Your task to perform on an android device: change the clock display to show seconds Image 0: 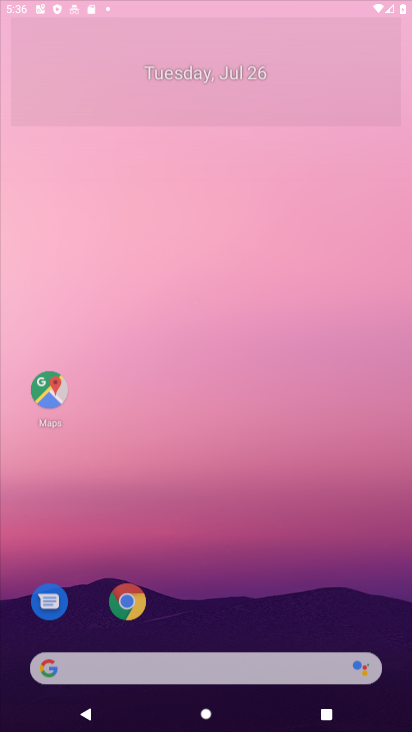
Step 0: press home button
Your task to perform on an android device: change the clock display to show seconds Image 1: 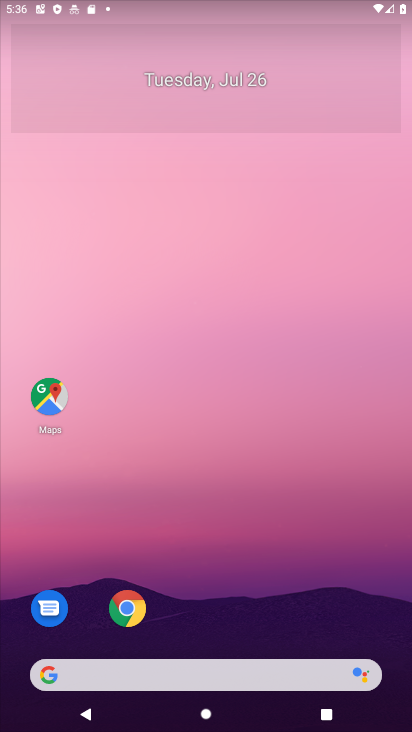
Step 1: drag from (250, 648) to (257, 66)
Your task to perform on an android device: change the clock display to show seconds Image 2: 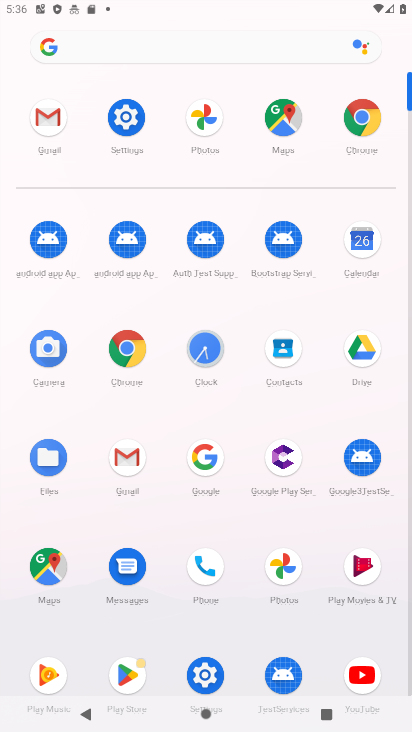
Step 2: click (204, 352)
Your task to perform on an android device: change the clock display to show seconds Image 3: 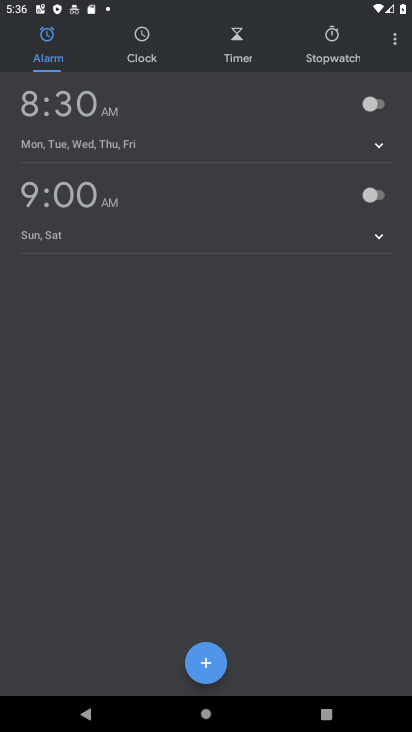
Step 3: click (396, 35)
Your task to perform on an android device: change the clock display to show seconds Image 4: 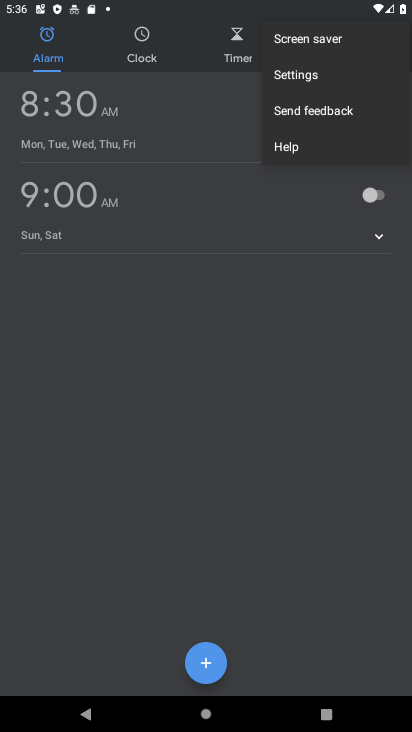
Step 4: click (290, 79)
Your task to perform on an android device: change the clock display to show seconds Image 5: 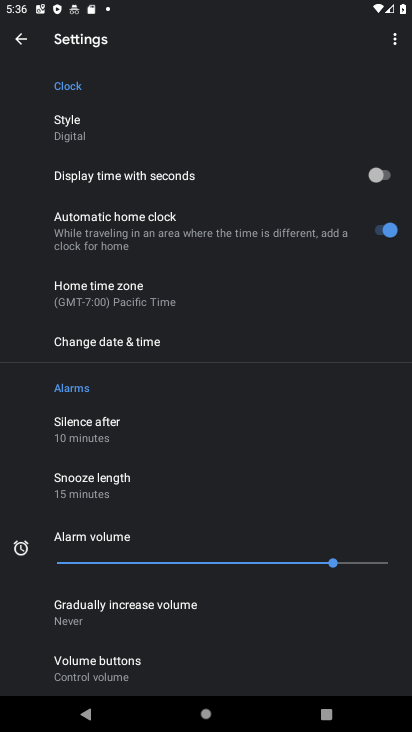
Step 5: click (378, 185)
Your task to perform on an android device: change the clock display to show seconds Image 6: 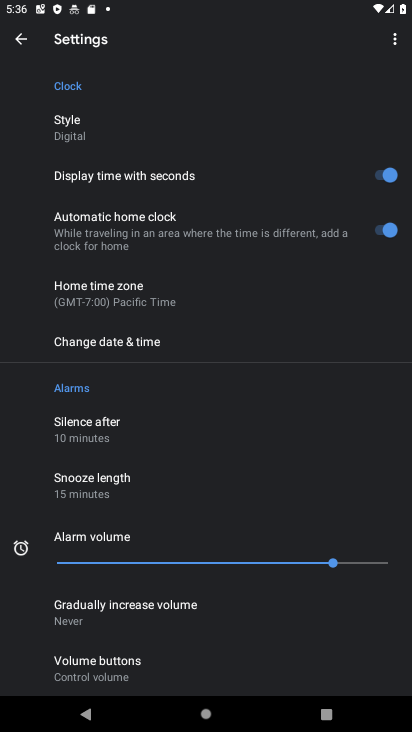
Step 6: task complete